Your task to perform on an android device: toggle wifi Image 0: 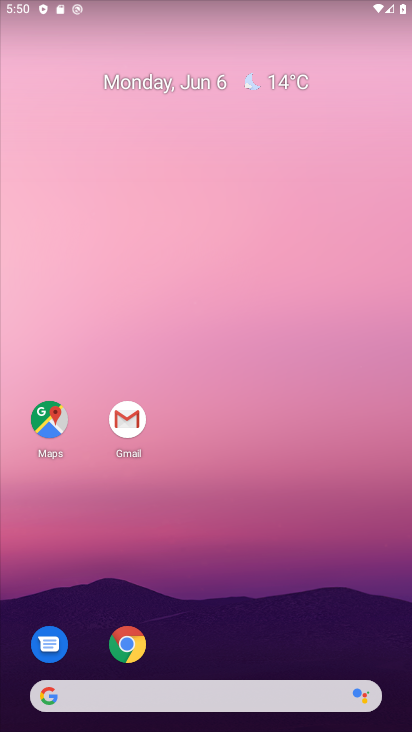
Step 0: drag from (267, 718) to (204, 143)
Your task to perform on an android device: toggle wifi Image 1: 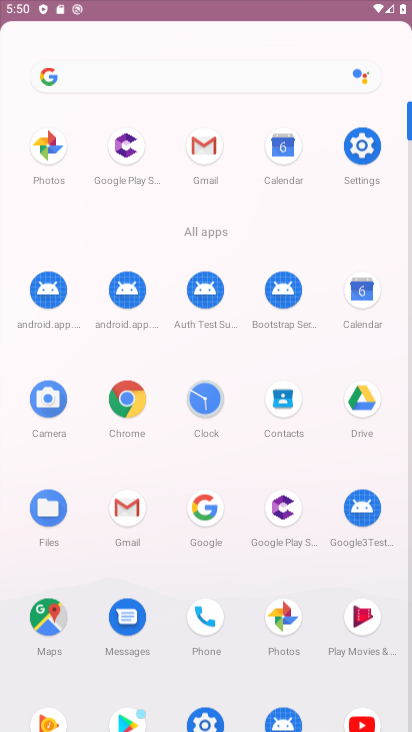
Step 1: drag from (201, 594) to (116, 19)
Your task to perform on an android device: toggle wifi Image 2: 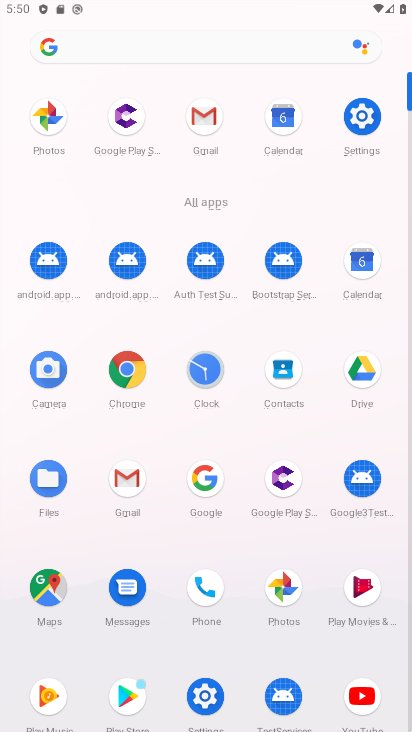
Step 2: click (368, 119)
Your task to perform on an android device: toggle wifi Image 3: 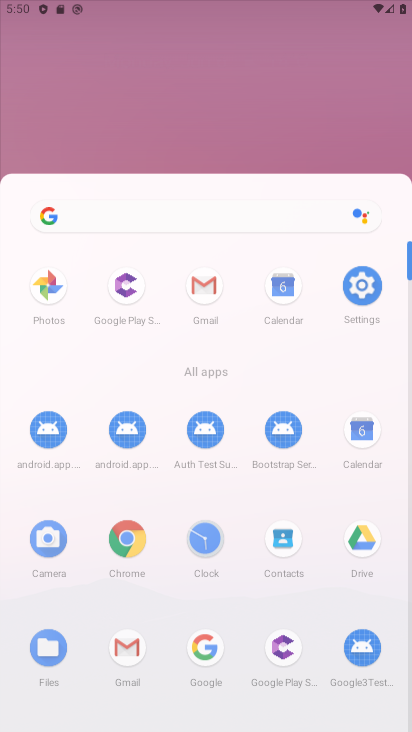
Step 3: click (367, 119)
Your task to perform on an android device: toggle wifi Image 4: 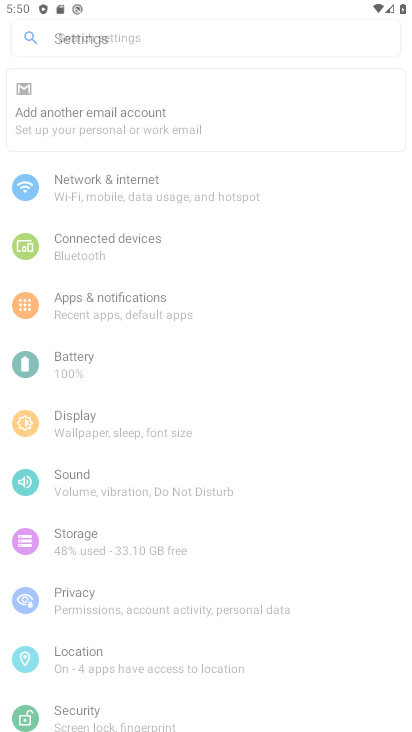
Step 4: drag from (269, 540) to (176, 15)
Your task to perform on an android device: toggle wifi Image 5: 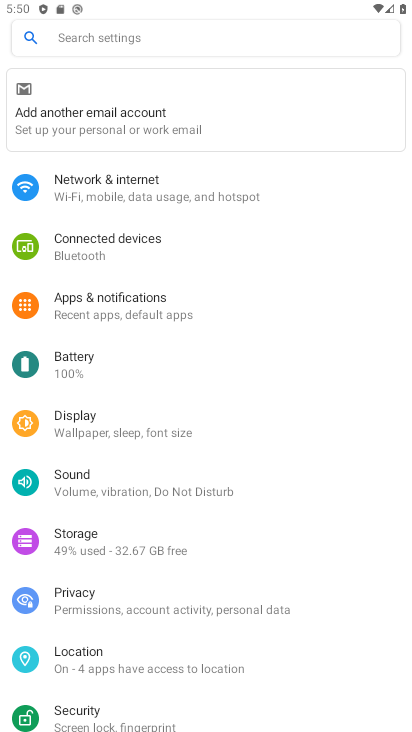
Step 5: click (116, 105)
Your task to perform on an android device: toggle wifi Image 6: 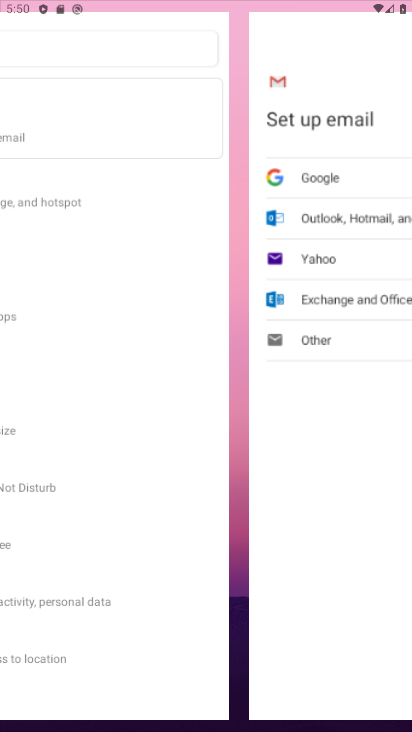
Step 6: click (119, 209)
Your task to perform on an android device: toggle wifi Image 7: 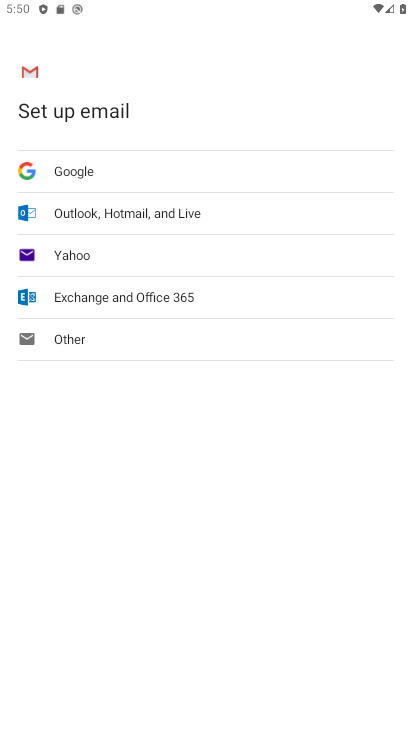
Step 7: press back button
Your task to perform on an android device: toggle wifi Image 8: 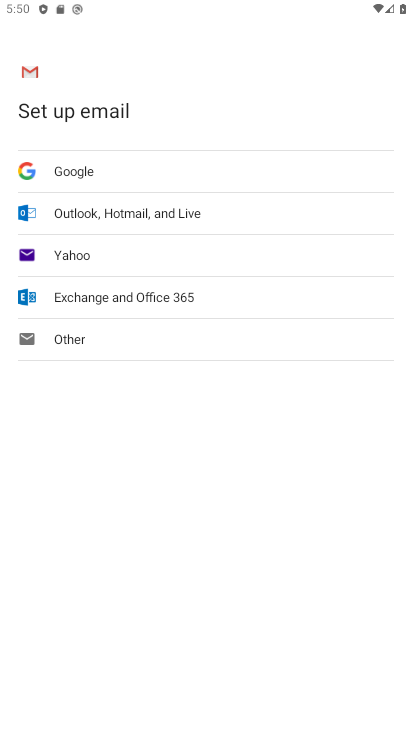
Step 8: press back button
Your task to perform on an android device: toggle wifi Image 9: 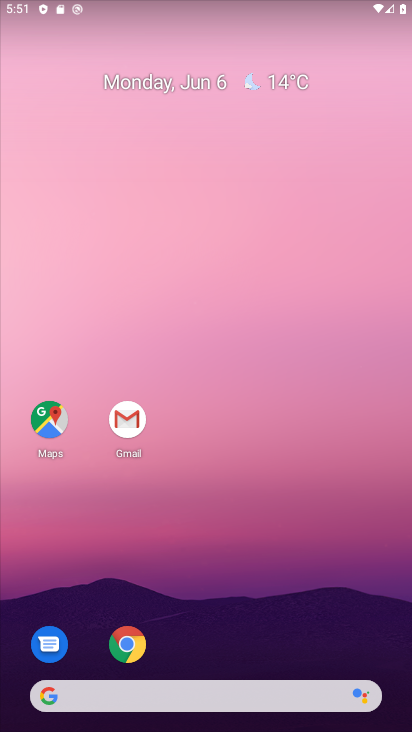
Step 9: drag from (236, 642) to (125, 104)
Your task to perform on an android device: toggle wifi Image 10: 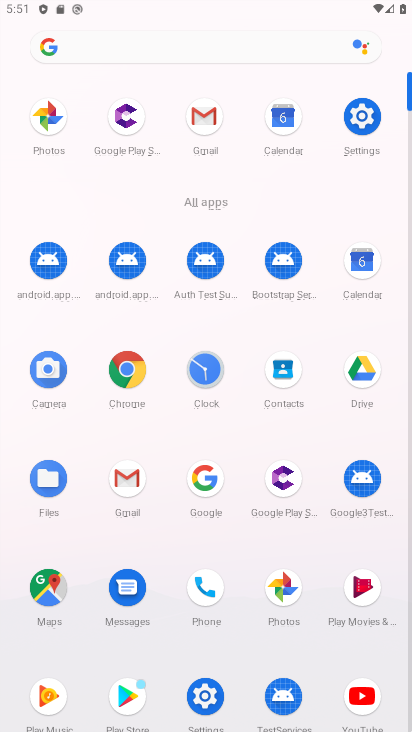
Step 10: click (364, 115)
Your task to perform on an android device: toggle wifi Image 11: 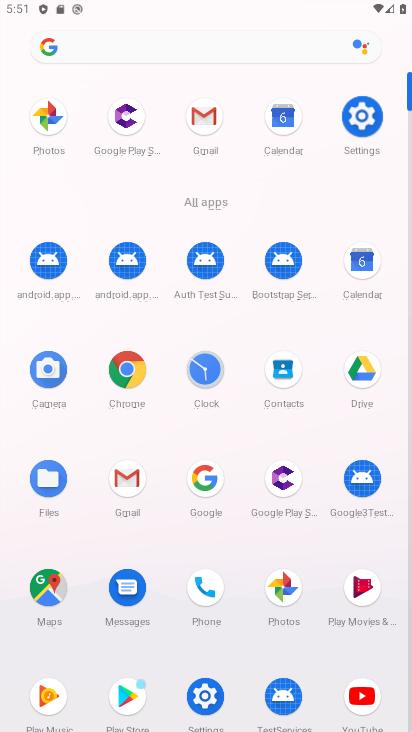
Step 11: click (364, 115)
Your task to perform on an android device: toggle wifi Image 12: 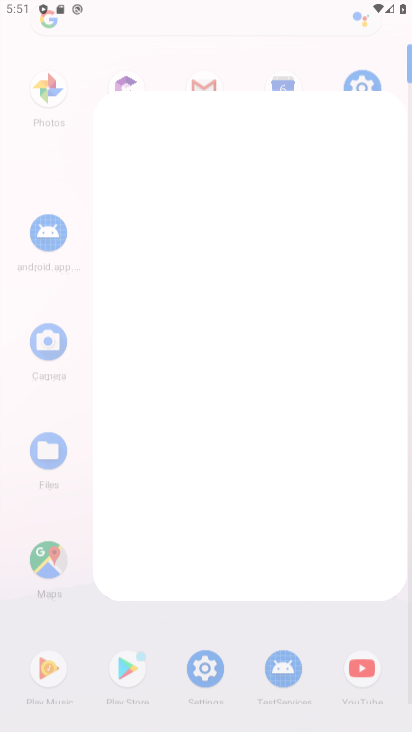
Step 12: click (364, 115)
Your task to perform on an android device: toggle wifi Image 13: 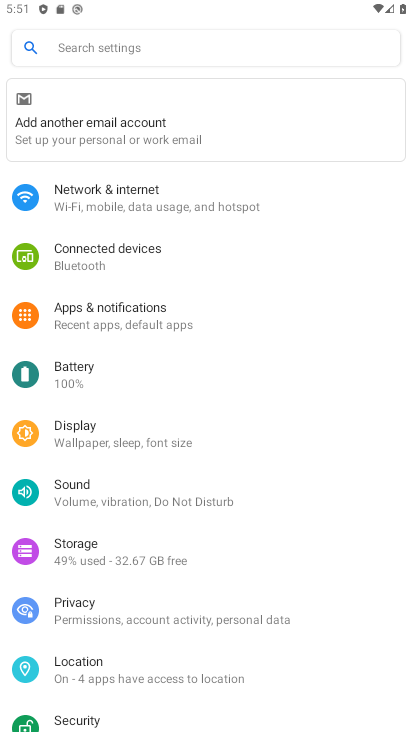
Step 13: click (95, 203)
Your task to perform on an android device: toggle wifi Image 14: 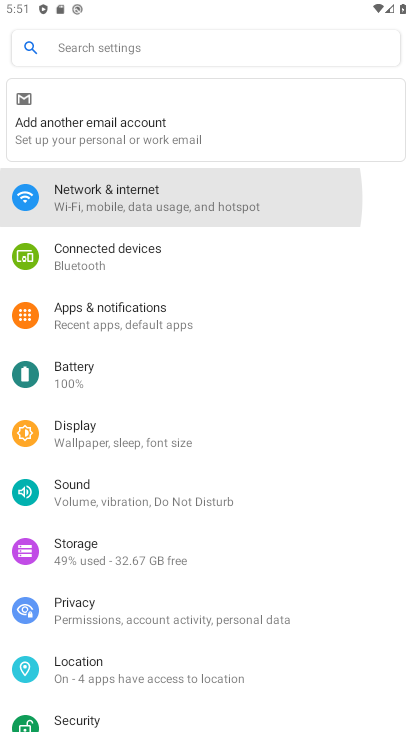
Step 14: click (95, 202)
Your task to perform on an android device: toggle wifi Image 15: 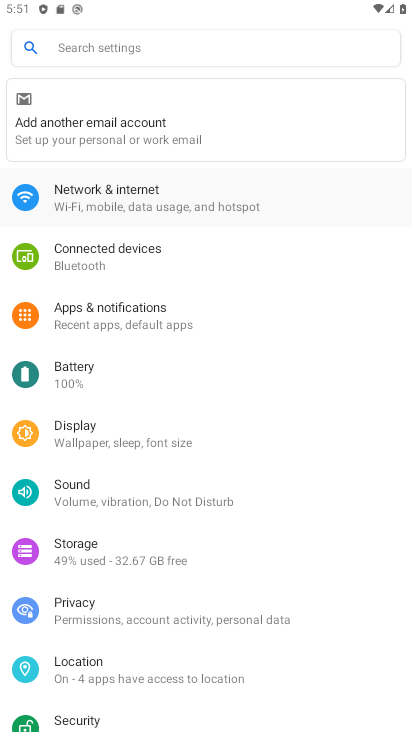
Step 15: click (95, 202)
Your task to perform on an android device: toggle wifi Image 16: 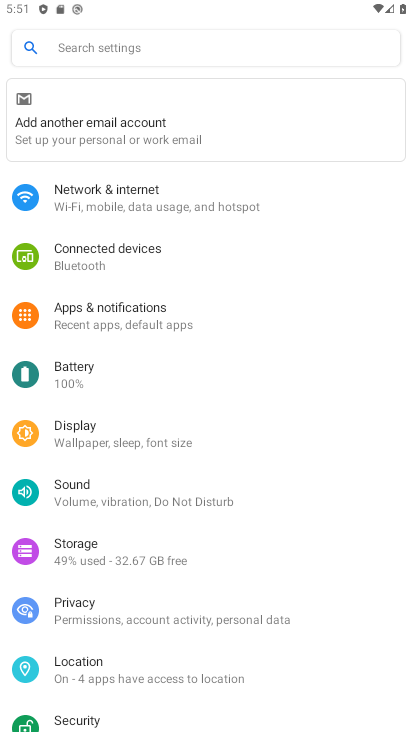
Step 16: click (95, 202)
Your task to perform on an android device: toggle wifi Image 17: 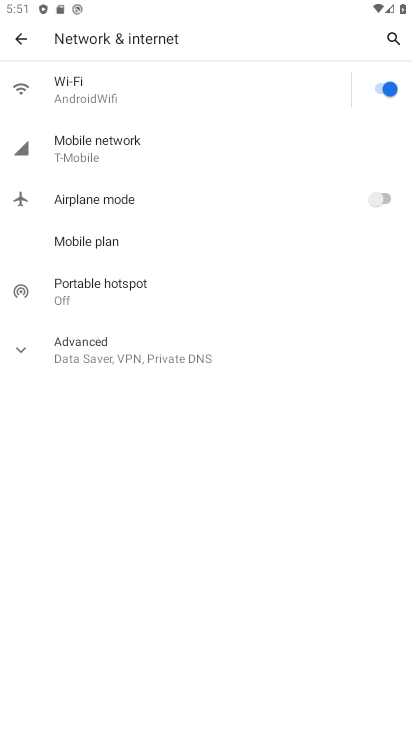
Step 17: task complete